Your task to perform on an android device: Go to Maps Image 0: 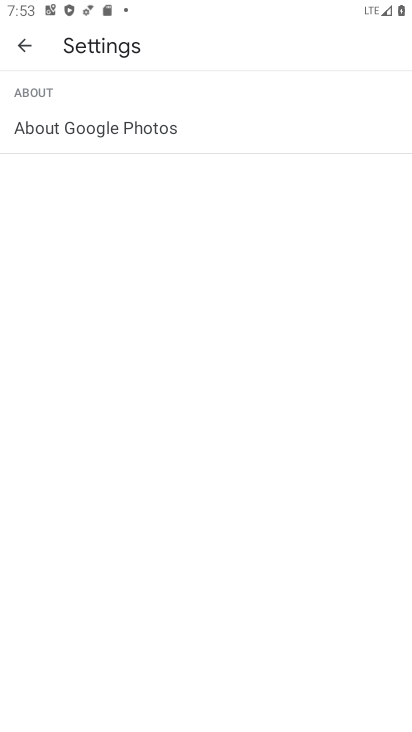
Step 0: press home button
Your task to perform on an android device: Go to Maps Image 1: 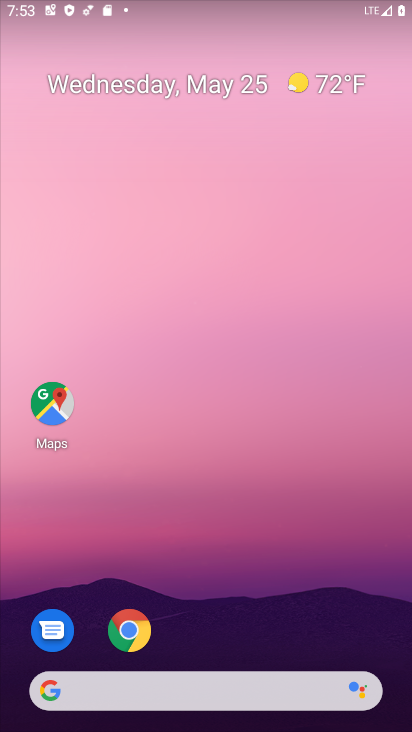
Step 1: click (44, 401)
Your task to perform on an android device: Go to Maps Image 2: 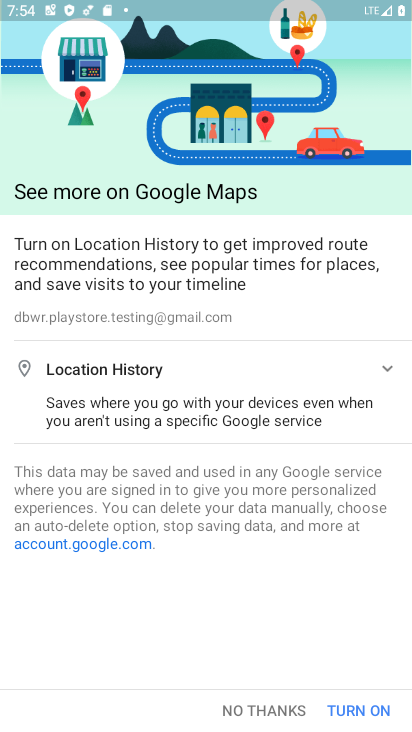
Step 2: click (386, 705)
Your task to perform on an android device: Go to Maps Image 3: 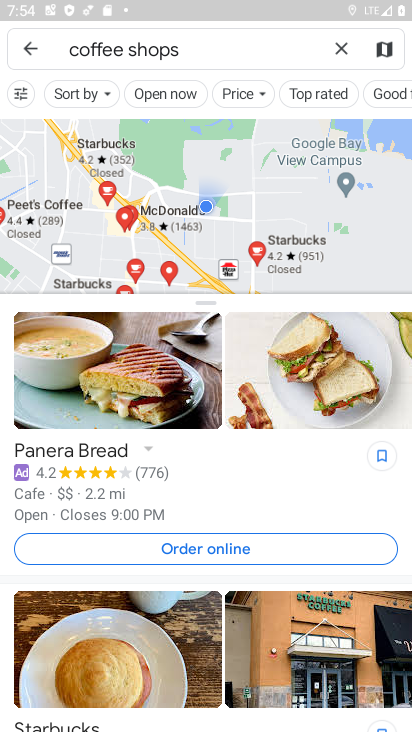
Step 3: task complete